Your task to perform on an android device: When is my next appointment? Image 0: 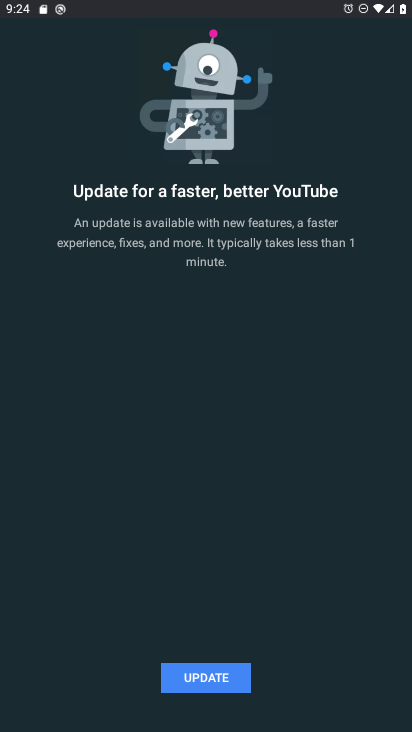
Step 0: press home button
Your task to perform on an android device: When is my next appointment? Image 1: 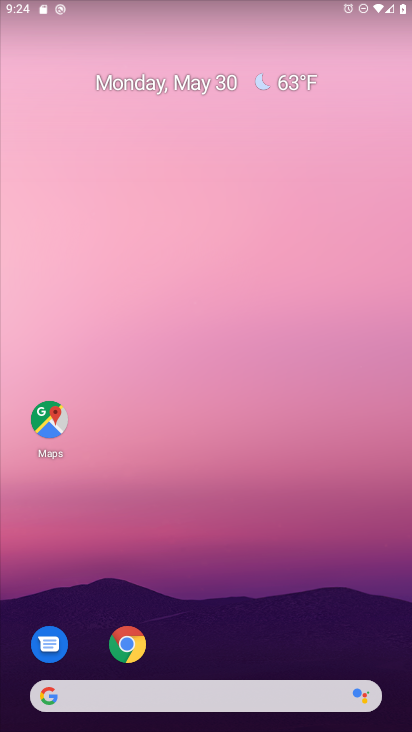
Step 1: drag from (206, 647) to (229, 77)
Your task to perform on an android device: When is my next appointment? Image 2: 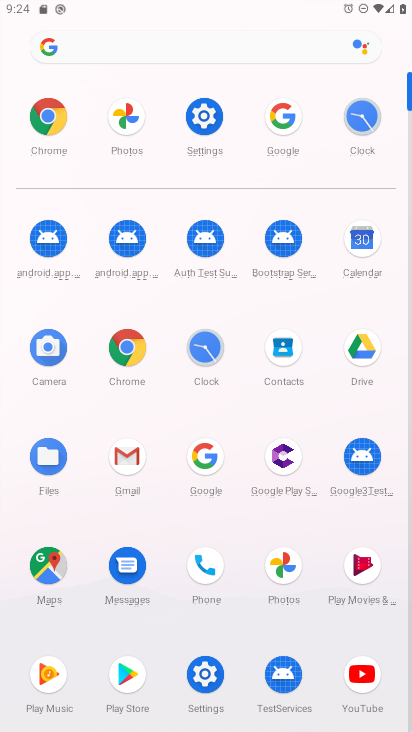
Step 2: click (366, 244)
Your task to perform on an android device: When is my next appointment? Image 3: 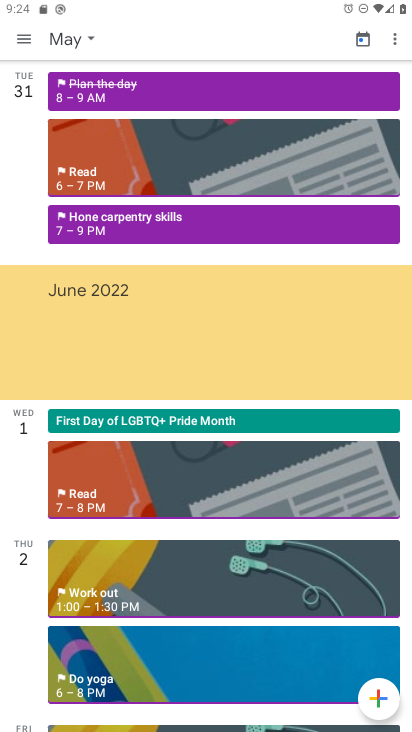
Step 3: click (82, 35)
Your task to perform on an android device: When is my next appointment? Image 4: 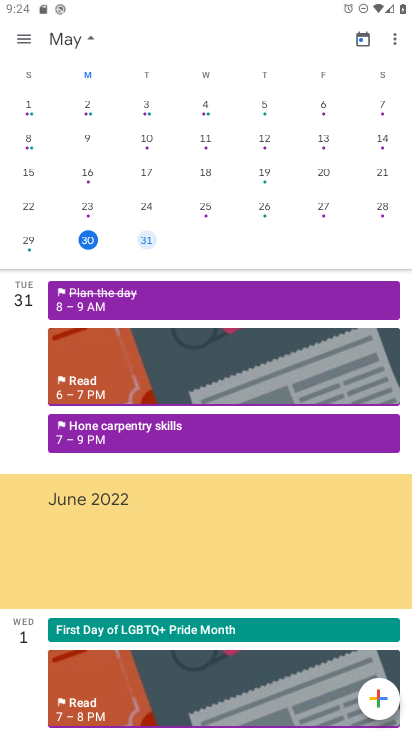
Step 4: click (146, 240)
Your task to perform on an android device: When is my next appointment? Image 5: 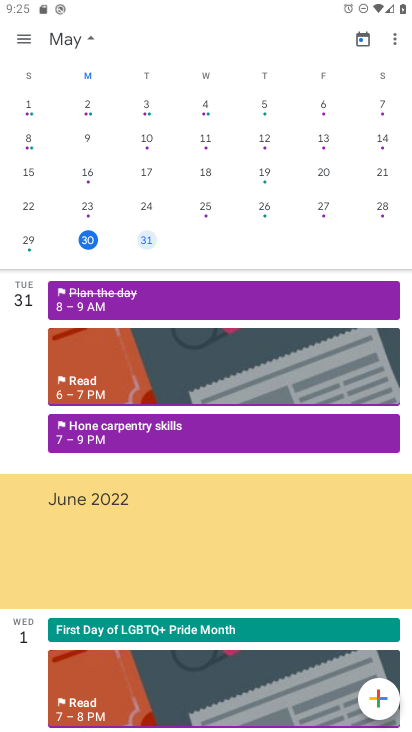
Step 5: task complete